Your task to perform on an android device: toggle translation in the chrome app Image 0: 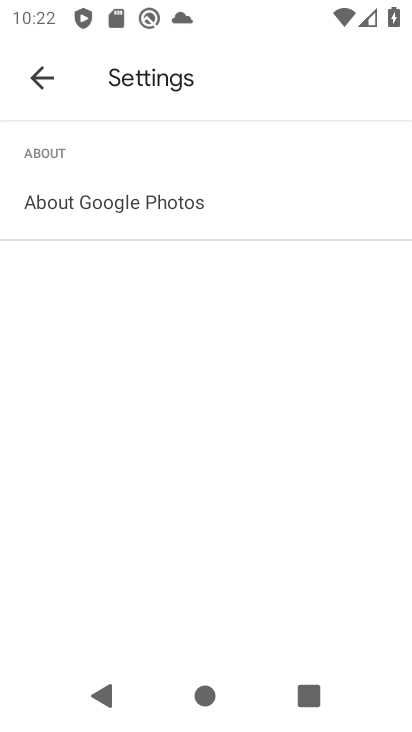
Step 0: press home button
Your task to perform on an android device: toggle translation in the chrome app Image 1: 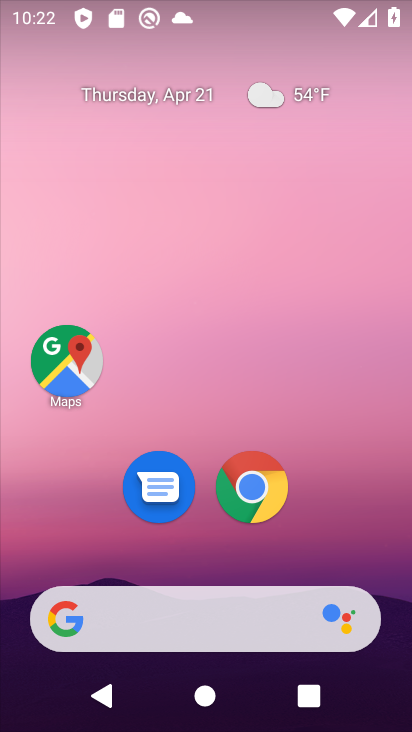
Step 1: drag from (364, 535) to (374, 97)
Your task to perform on an android device: toggle translation in the chrome app Image 2: 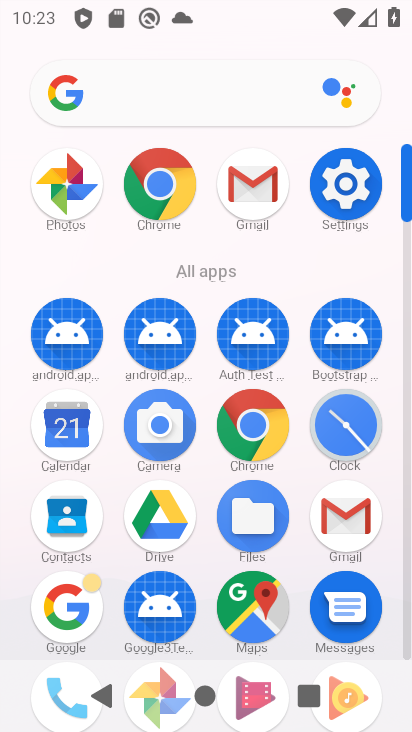
Step 2: click (274, 434)
Your task to perform on an android device: toggle translation in the chrome app Image 3: 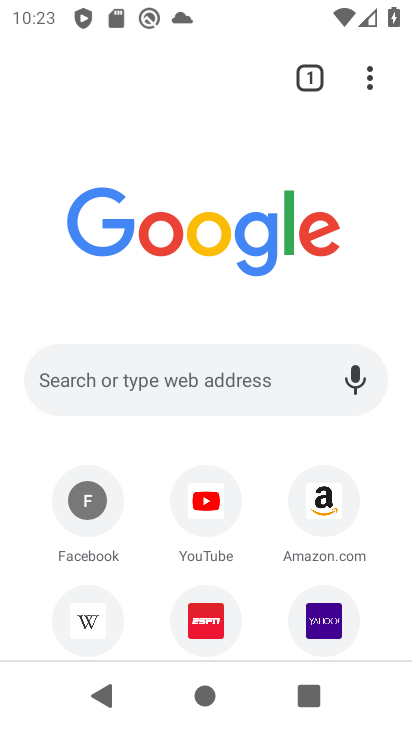
Step 3: drag from (375, 88) to (180, 553)
Your task to perform on an android device: toggle translation in the chrome app Image 4: 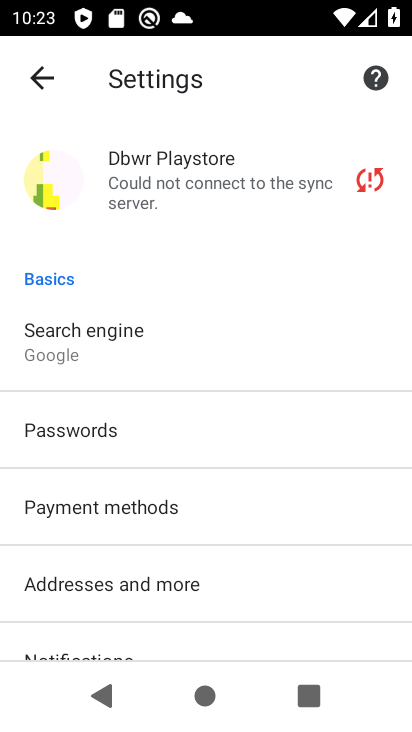
Step 4: drag from (254, 584) to (293, 386)
Your task to perform on an android device: toggle translation in the chrome app Image 5: 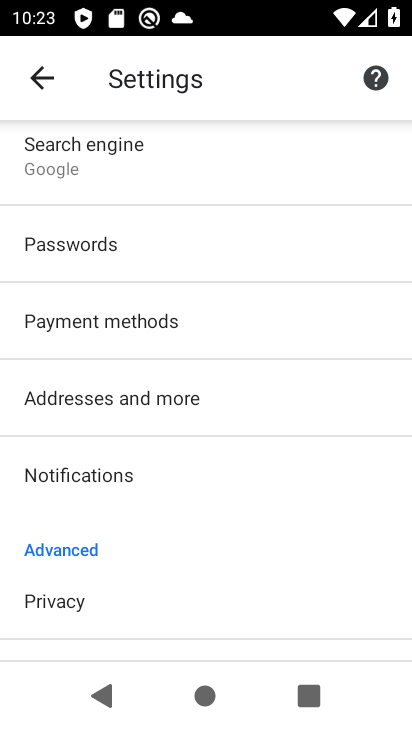
Step 5: drag from (237, 571) to (280, 370)
Your task to perform on an android device: toggle translation in the chrome app Image 6: 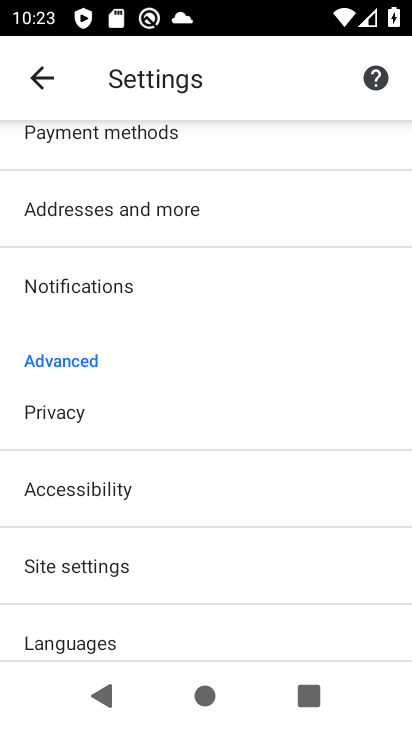
Step 6: click (135, 639)
Your task to perform on an android device: toggle translation in the chrome app Image 7: 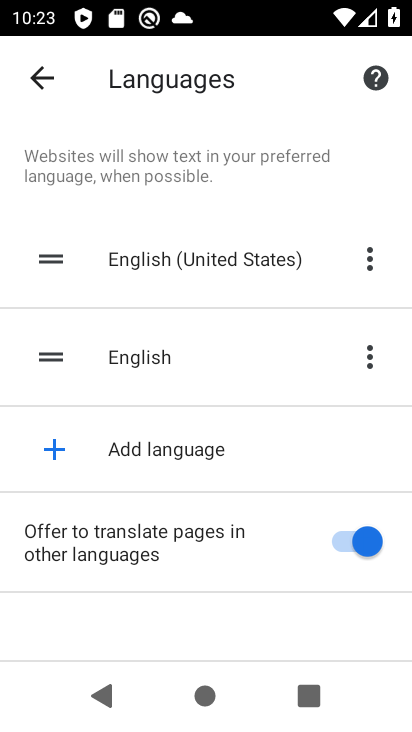
Step 7: click (351, 548)
Your task to perform on an android device: toggle translation in the chrome app Image 8: 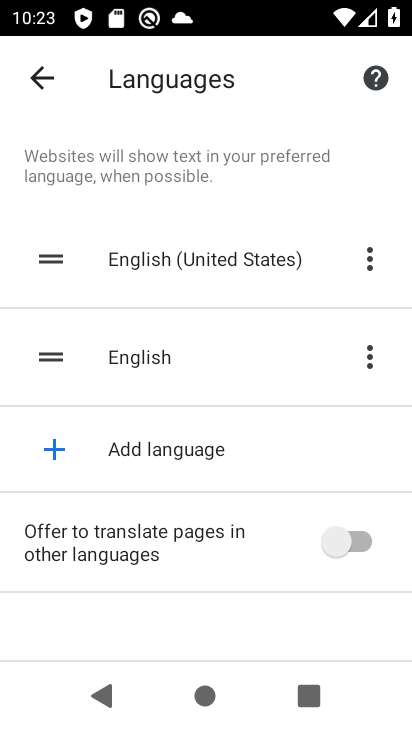
Step 8: task complete